Your task to perform on an android device: Open Maps and search for coffee Image 0: 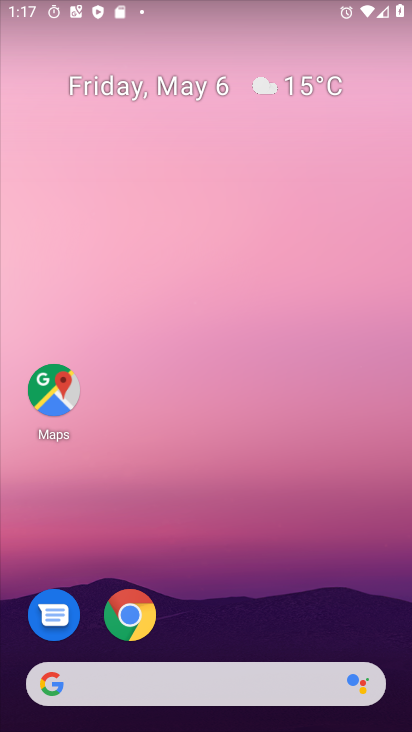
Step 0: drag from (313, 610) to (288, 103)
Your task to perform on an android device: Open Maps and search for coffee Image 1: 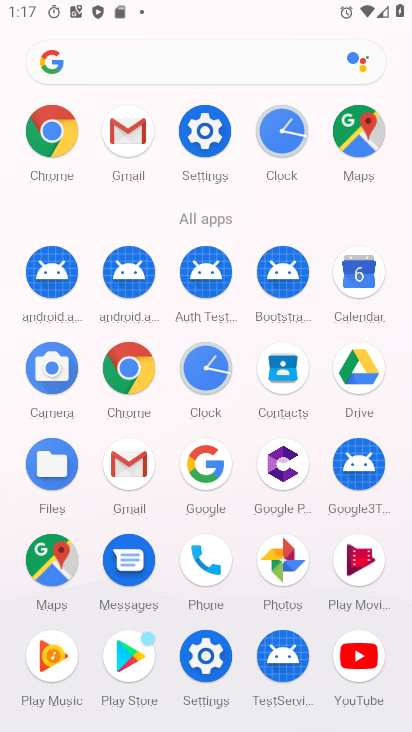
Step 1: click (45, 543)
Your task to perform on an android device: Open Maps and search for coffee Image 2: 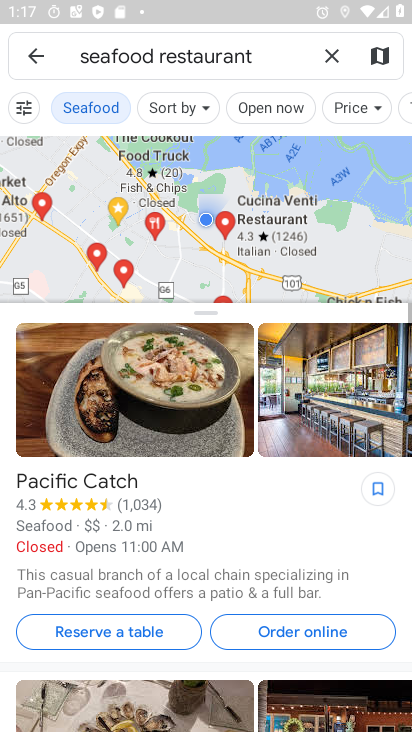
Step 2: click (332, 50)
Your task to perform on an android device: Open Maps and search for coffee Image 3: 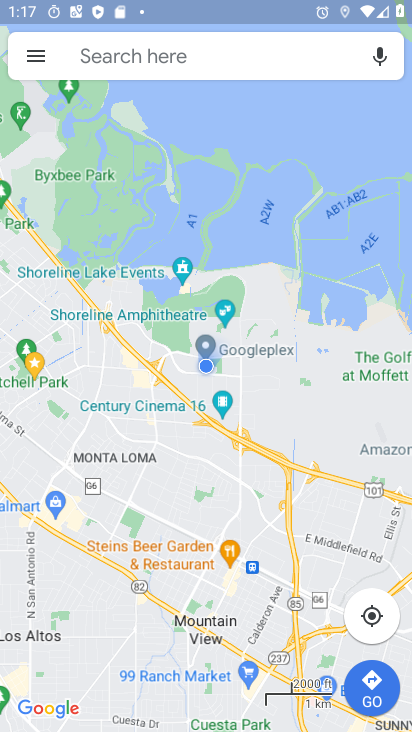
Step 3: click (296, 46)
Your task to perform on an android device: Open Maps and search for coffee Image 4: 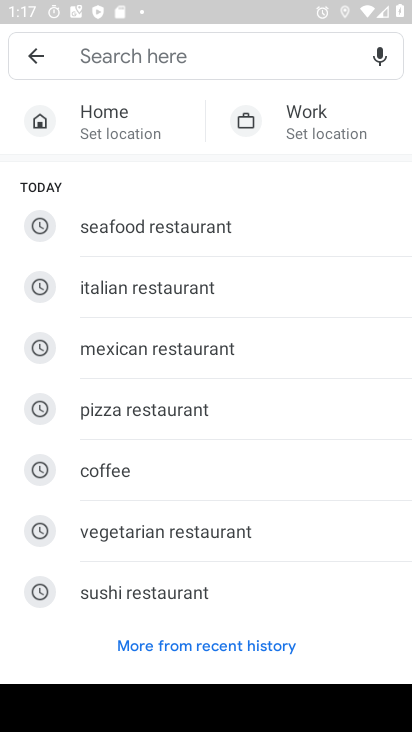
Step 4: click (151, 463)
Your task to perform on an android device: Open Maps and search for coffee Image 5: 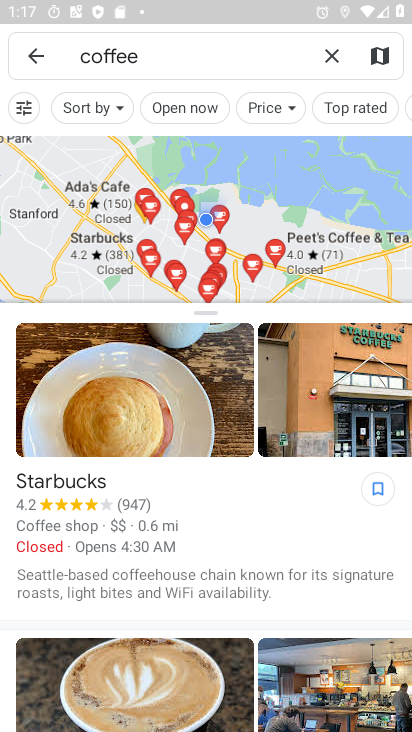
Step 5: task complete